Your task to perform on an android device: Go to notification settings Image 0: 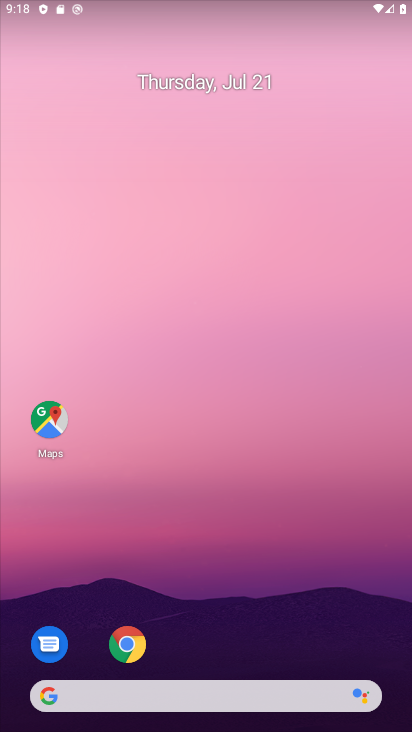
Step 0: task complete